Your task to perform on an android device: Open network settings Image 0: 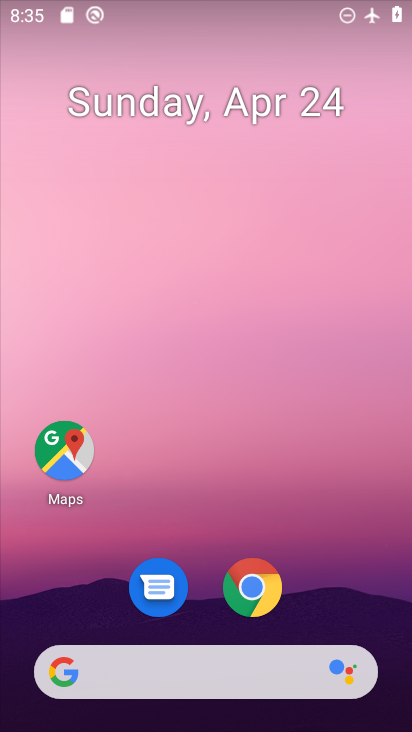
Step 0: drag from (393, 559) to (327, 52)
Your task to perform on an android device: Open network settings Image 1: 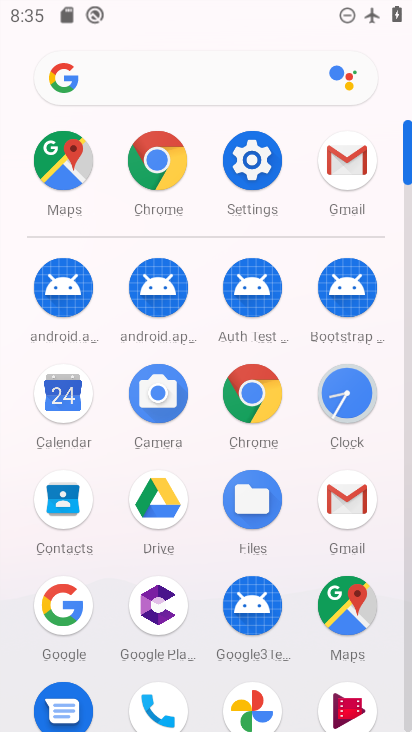
Step 1: click (248, 174)
Your task to perform on an android device: Open network settings Image 2: 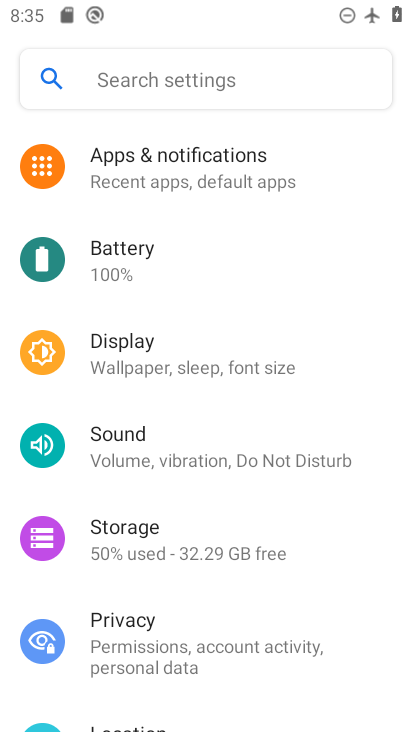
Step 2: drag from (277, 298) to (282, 580)
Your task to perform on an android device: Open network settings Image 3: 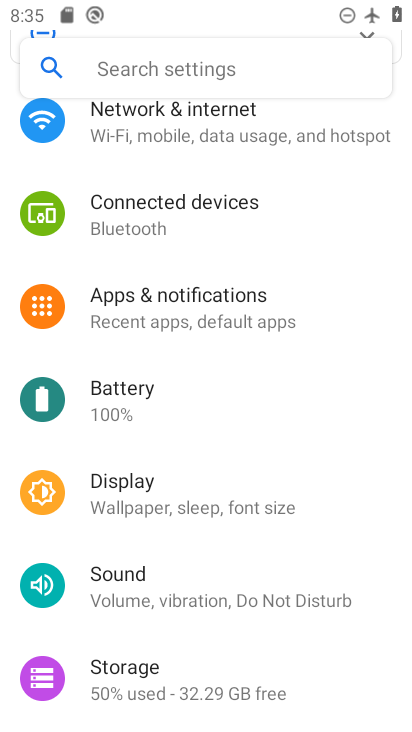
Step 3: click (197, 133)
Your task to perform on an android device: Open network settings Image 4: 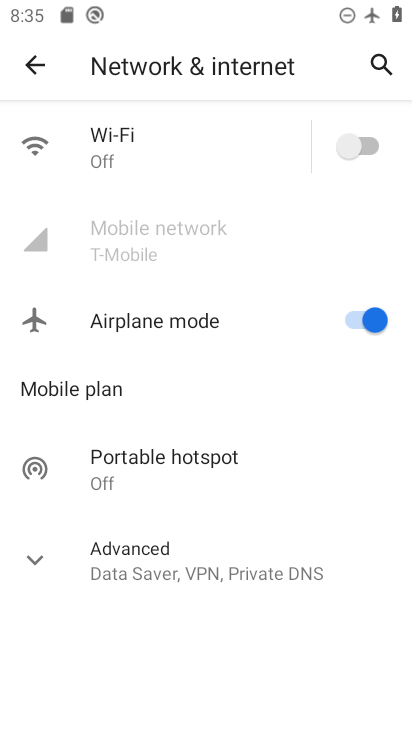
Step 4: task complete